Your task to perform on an android device: change notifications settings Image 0: 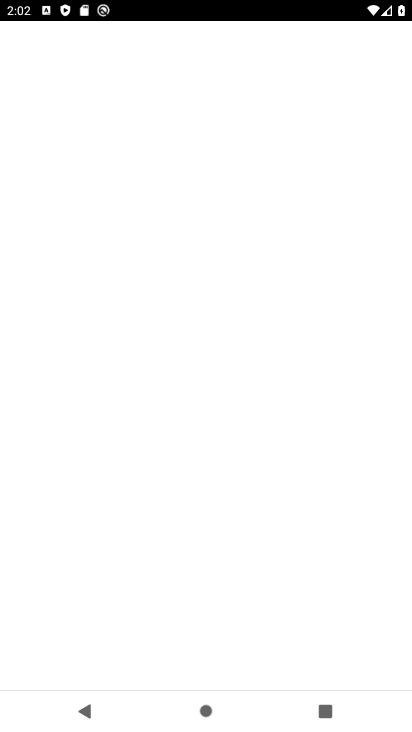
Step 0: drag from (206, 657) to (218, 6)
Your task to perform on an android device: change notifications settings Image 1: 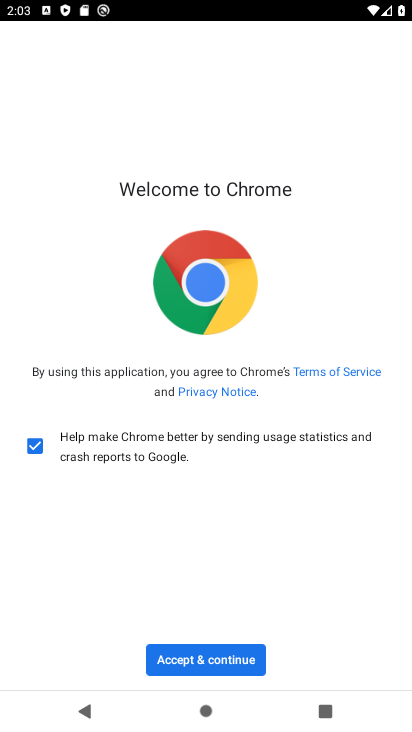
Step 1: drag from (247, 559) to (324, 222)
Your task to perform on an android device: change notifications settings Image 2: 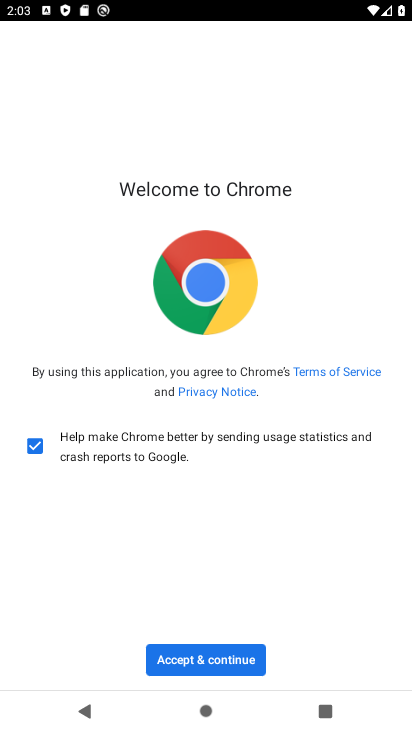
Step 2: press home button
Your task to perform on an android device: change notifications settings Image 3: 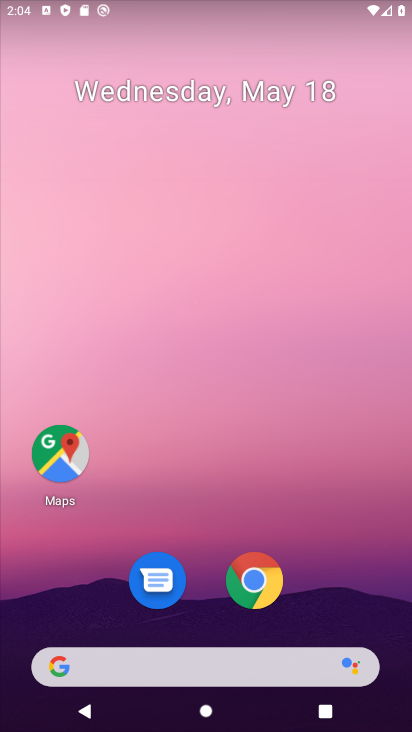
Step 3: drag from (214, 611) to (229, 139)
Your task to perform on an android device: change notifications settings Image 4: 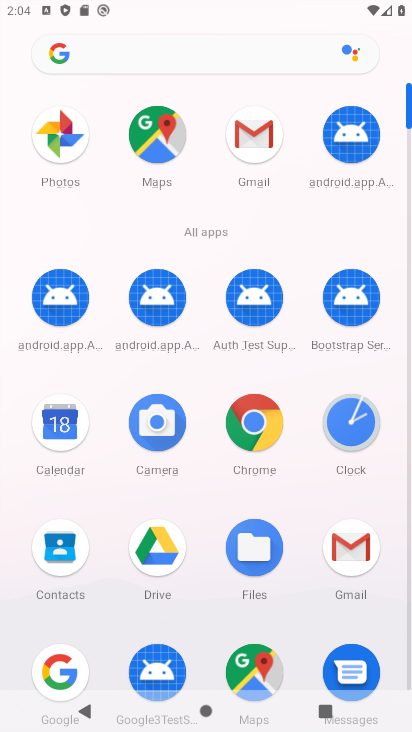
Step 4: drag from (201, 496) to (227, 255)
Your task to perform on an android device: change notifications settings Image 5: 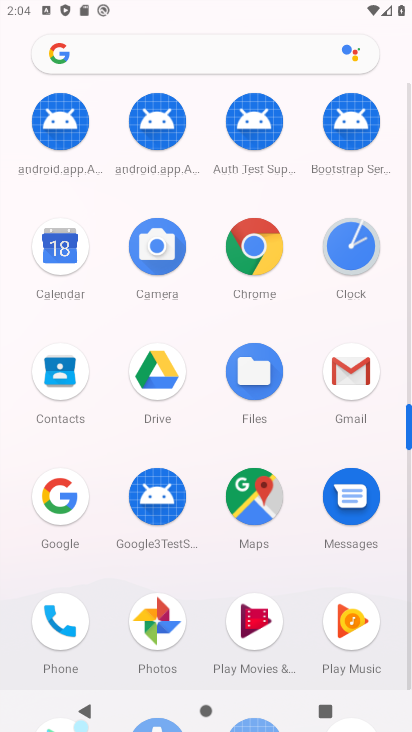
Step 5: drag from (191, 635) to (219, 163)
Your task to perform on an android device: change notifications settings Image 6: 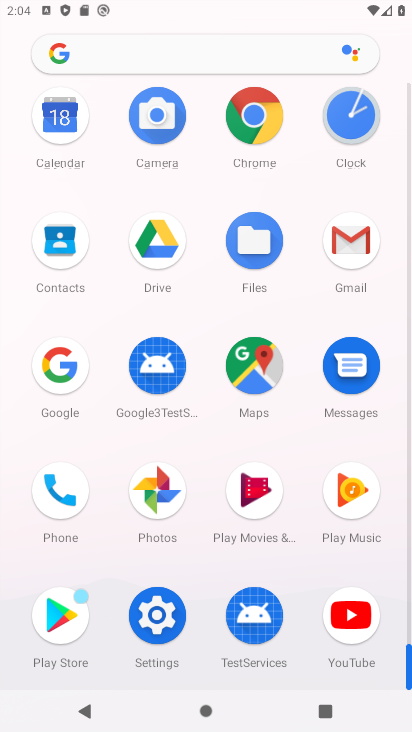
Step 6: click (150, 610)
Your task to perform on an android device: change notifications settings Image 7: 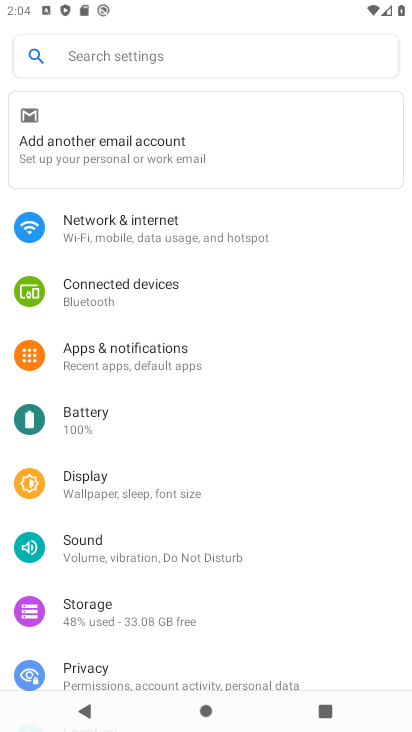
Step 7: click (128, 361)
Your task to perform on an android device: change notifications settings Image 8: 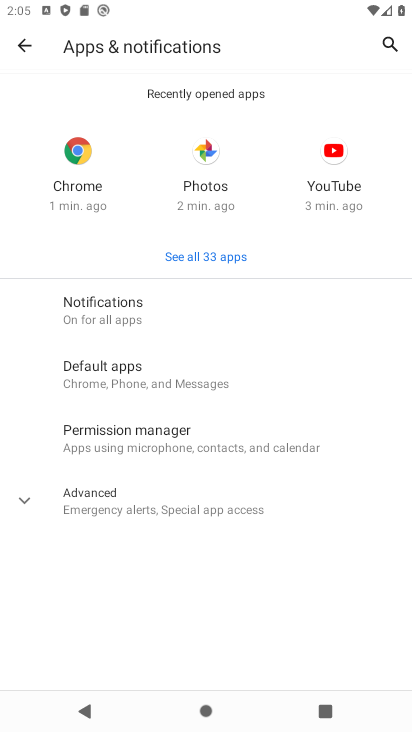
Step 8: click (134, 317)
Your task to perform on an android device: change notifications settings Image 9: 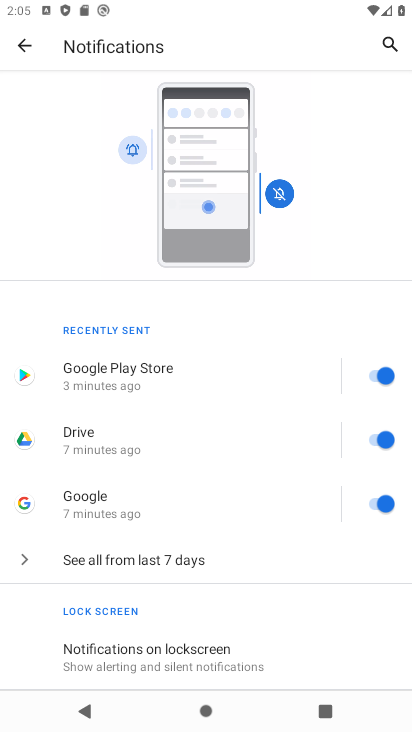
Step 9: click (379, 380)
Your task to perform on an android device: change notifications settings Image 10: 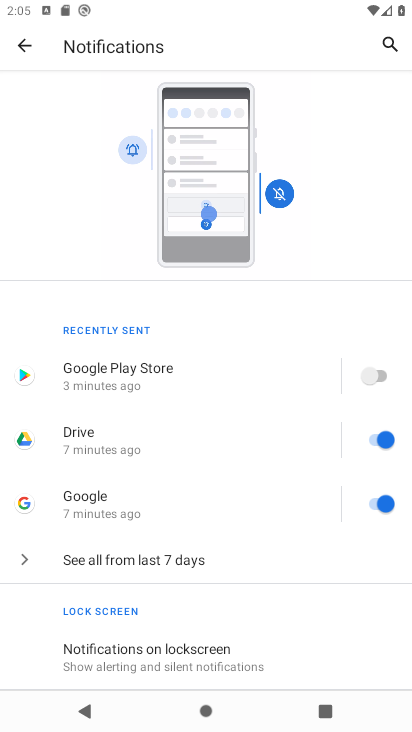
Step 10: task complete